Your task to perform on an android device: change text size in settings app Image 0: 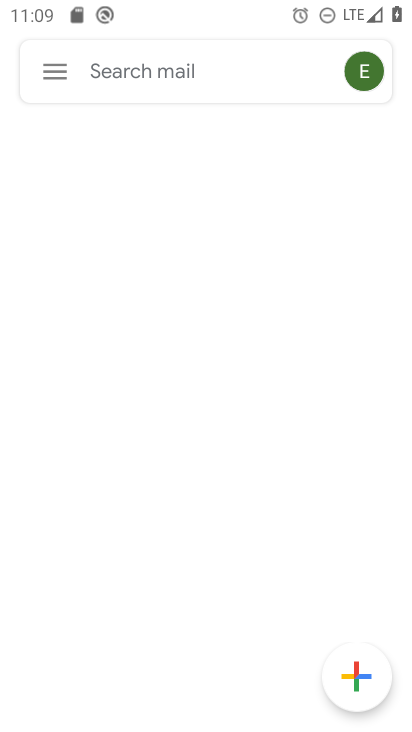
Step 0: press home button
Your task to perform on an android device: change text size in settings app Image 1: 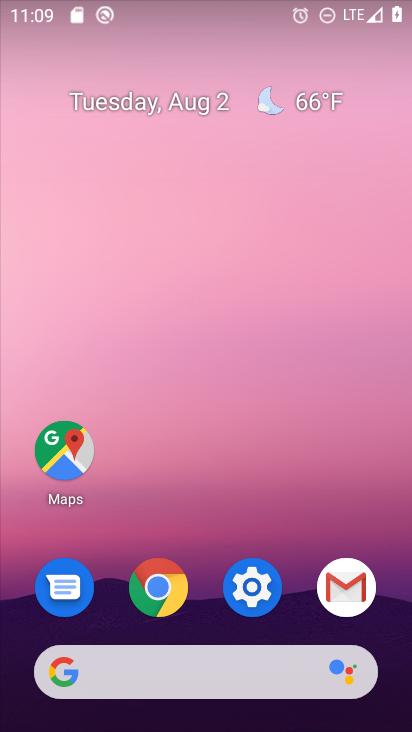
Step 1: click (268, 593)
Your task to perform on an android device: change text size in settings app Image 2: 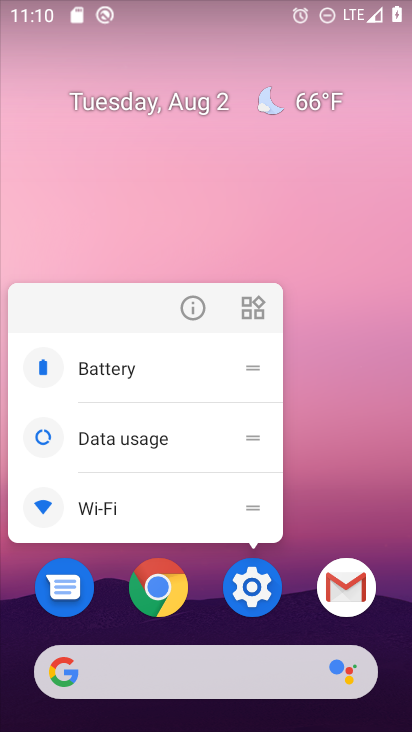
Step 2: click (262, 582)
Your task to perform on an android device: change text size in settings app Image 3: 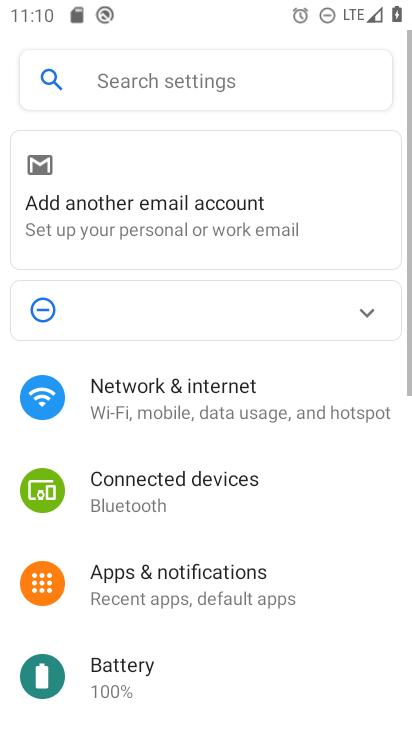
Step 3: click (133, 74)
Your task to perform on an android device: change text size in settings app Image 4: 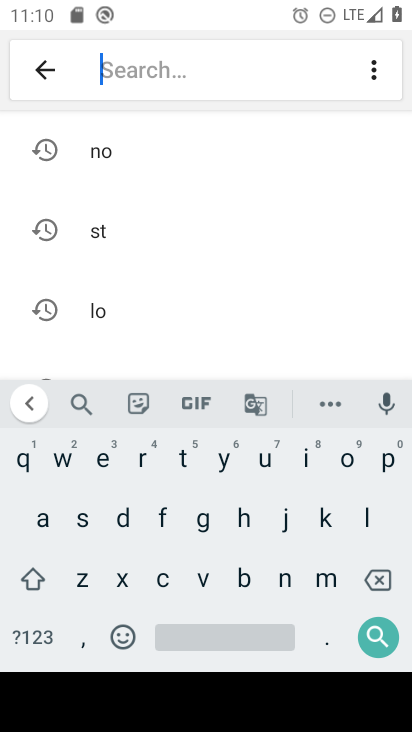
Step 4: click (72, 521)
Your task to perform on an android device: change text size in settings app Image 5: 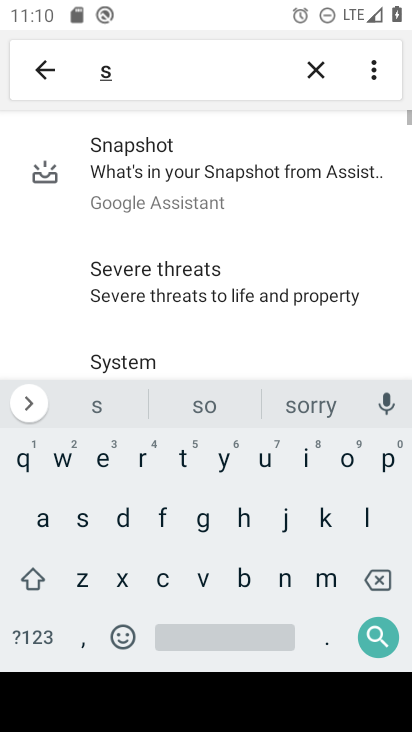
Step 5: click (299, 456)
Your task to perform on an android device: change text size in settings app Image 6: 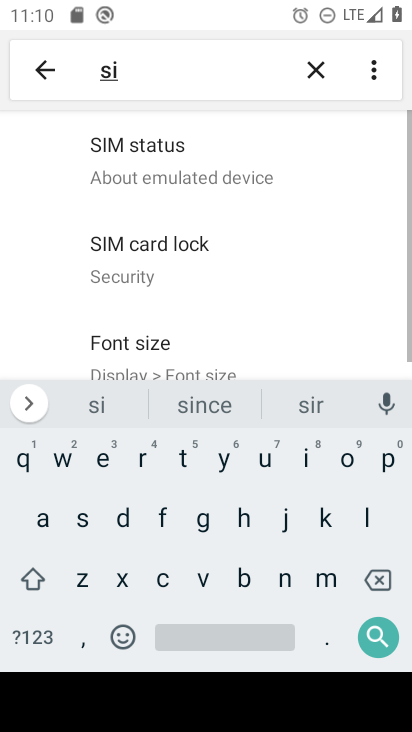
Step 6: click (78, 577)
Your task to perform on an android device: change text size in settings app Image 7: 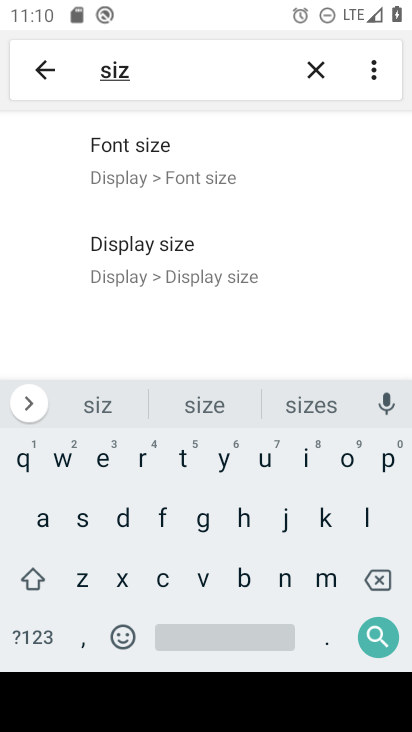
Step 7: click (148, 156)
Your task to perform on an android device: change text size in settings app Image 8: 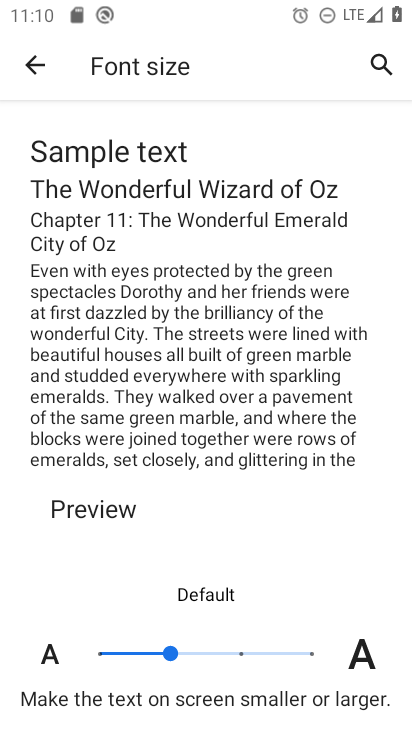
Step 8: click (123, 652)
Your task to perform on an android device: change text size in settings app Image 9: 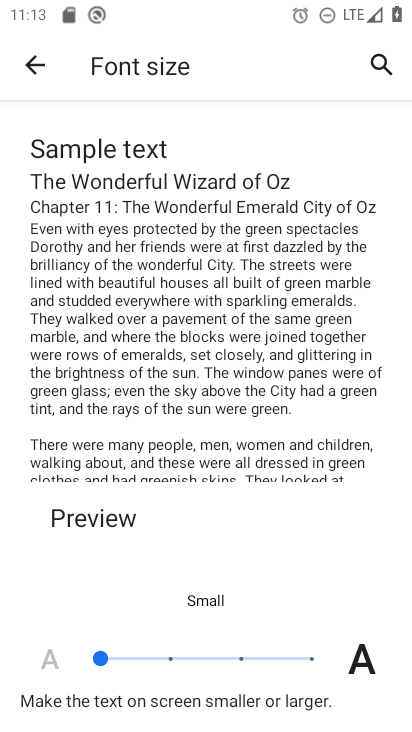
Step 9: task complete